Your task to perform on an android device: Open Google Chrome and click the shortcut for Amazon.com Image 0: 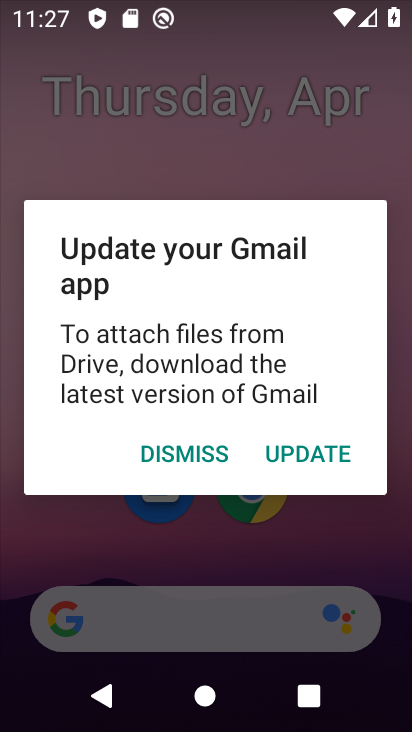
Step 0: press home button
Your task to perform on an android device: Open Google Chrome and click the shortcut for Amazon.com Image 1: 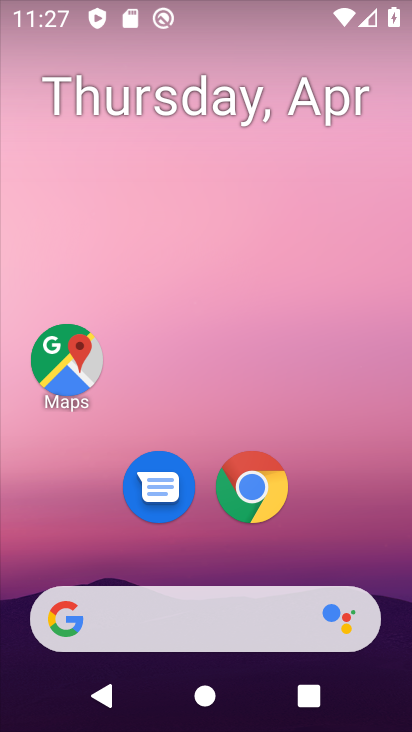
Step 1: drag from (333, 367) to (341, 194)
Your task to perform on an android device: Open Google Chrome and click the shortcut for Amazon.com Image 2: 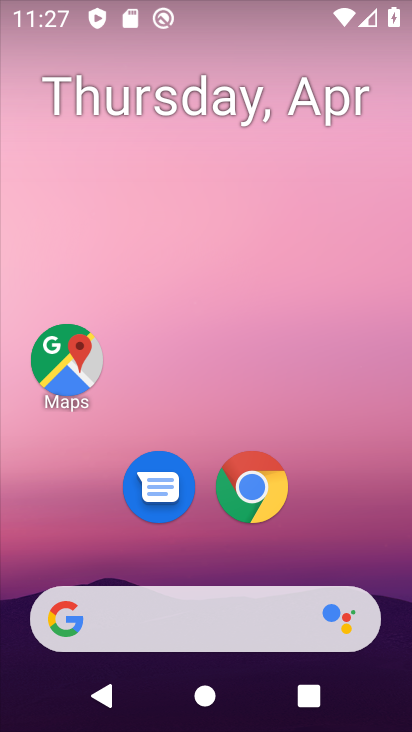
Step 2: drag from (289, 542) to (329, 232)
Your task to perform on an android device: Open Google Chrome and click the shortcut for Amazon.com Image 3: 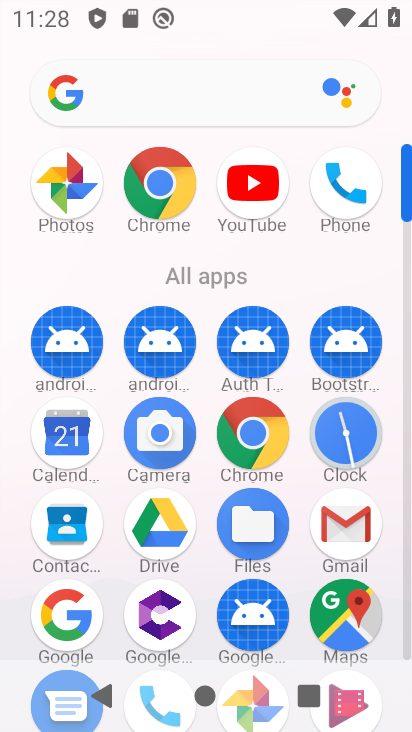
Step 3: click (254, 431)
Your task to perform on an android device: Open Google Chrome and click the shortcut for Amazon.com Image 4: 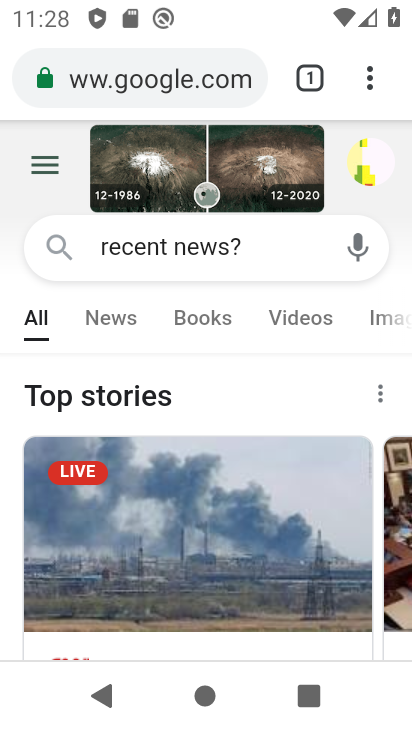
Step 4: click (365, 84)
Your task to perform on an android device: Open Google Chrome and click the shortcut for Amazon.com Image 5: 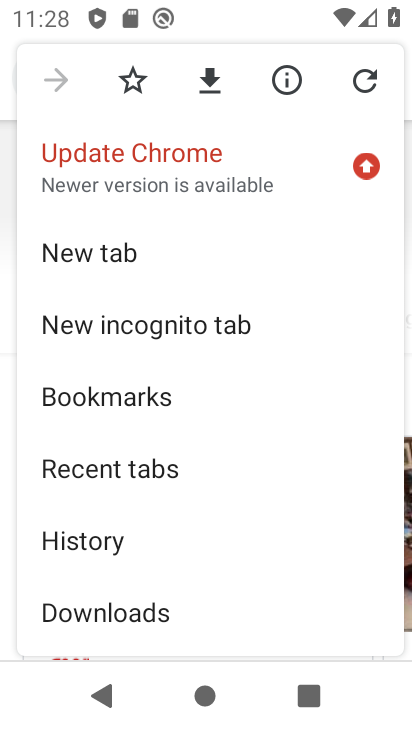
Step 5: click (158, 258)
Your task to perform on an android device: Open Google Chrome and click the shortcut for Amazon.com Image 6: 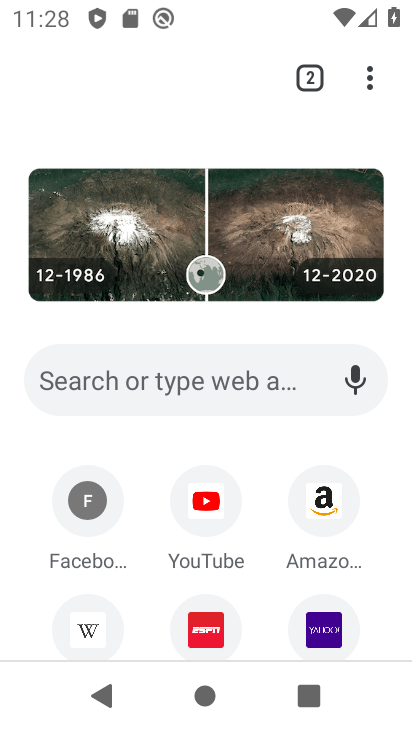
Step 6: click (323, 497)
Your task to perform on an android device: Open Google Chrome and click the shortcut for Amazon.com Image 7: 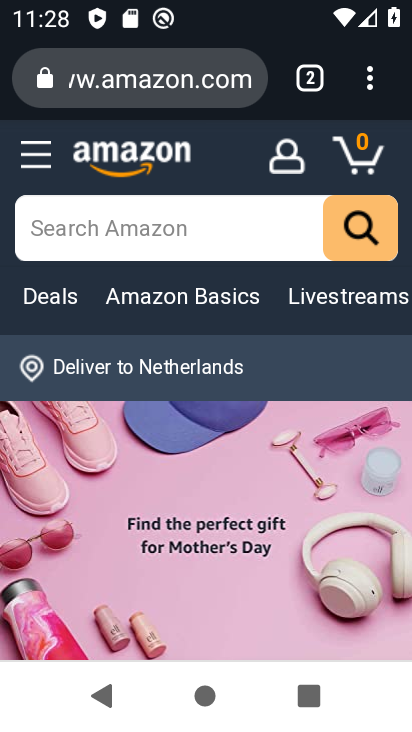
Step 7: task complete